Your task to perform on an android device: Go to Amazon Image 0: 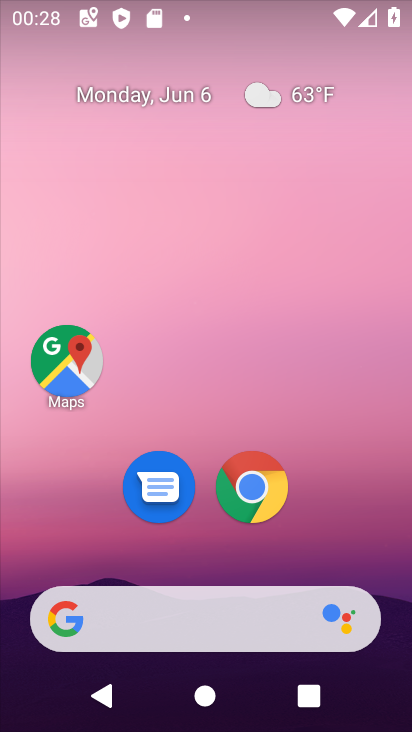
Step 0: click (255, 484)
Your task to perform on an android device: Go to Amazon Image 1: 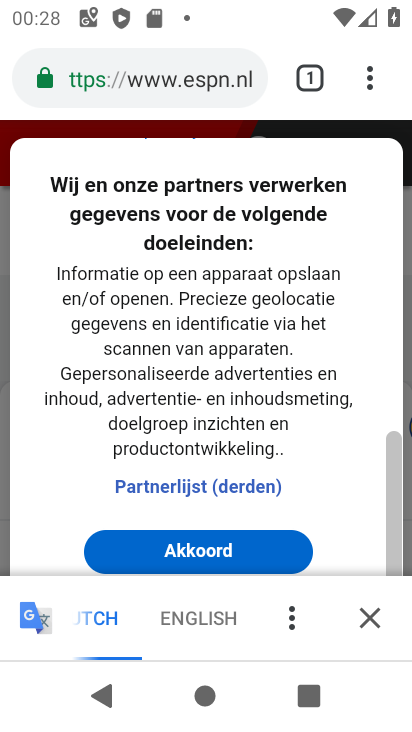
Step 1: click (214, 60)
Your task to perform on an android device: Go to Amazon Image 2: 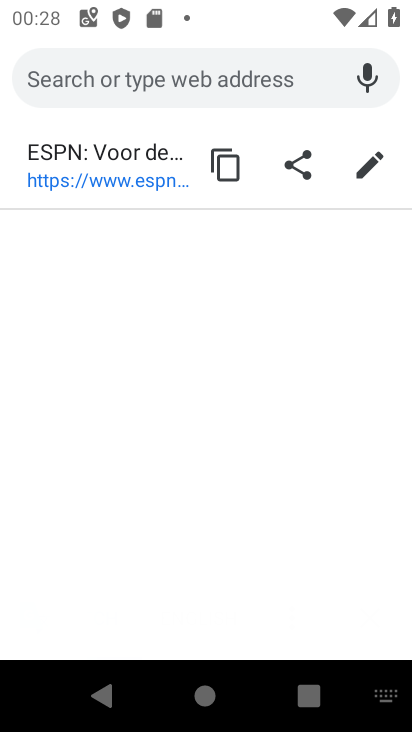
Step 2: type "amazon"
Your task to perform on an android device: Go to Amazon Image 3: 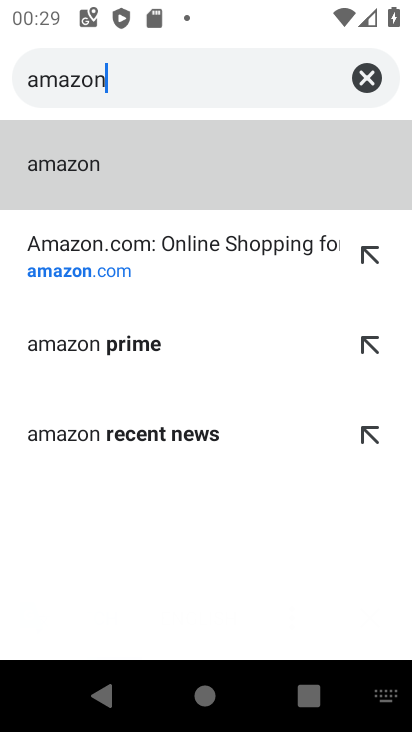
Step 3: click (109, 155)
Your task to perform on an android device: Go to Amazon Image 4: 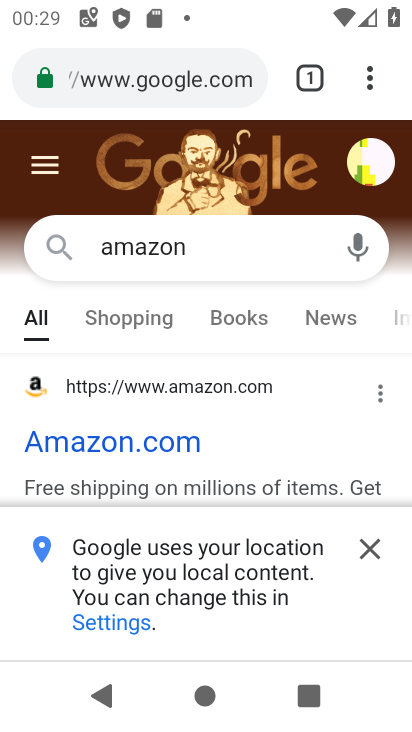
Step 4: click (153, 435)
Your task to perform on an android device: Go to Amazon Image 5: 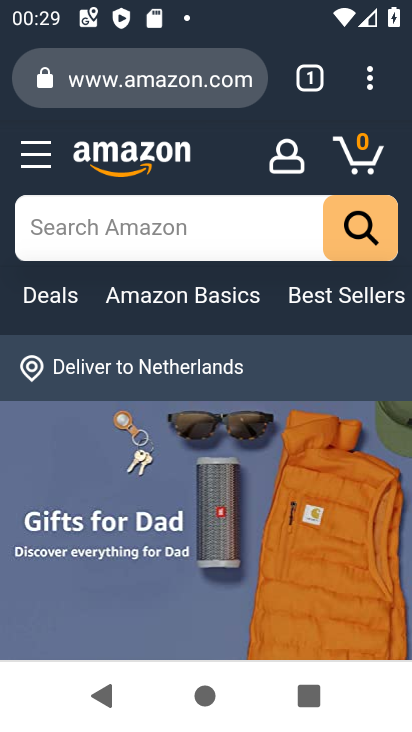
Step 5: task complete